Your task to perform on an android device: toggle sleep mode Image 0: 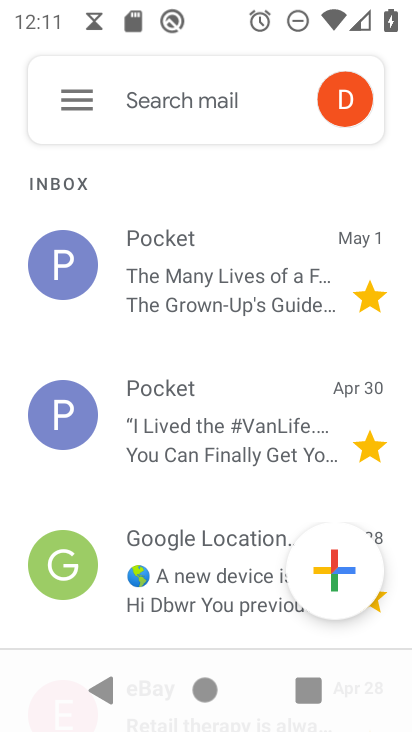
Step 0: press home button
Your task to perform on an android device: toggle sleep mode Image 1: 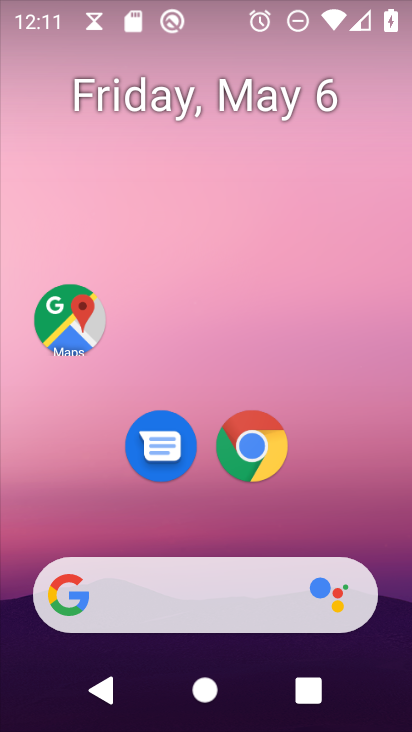
Step 1: drag from (243, 651) to (242, 349)
Your task to perform on an android device: toggle sleep mode Image 2: 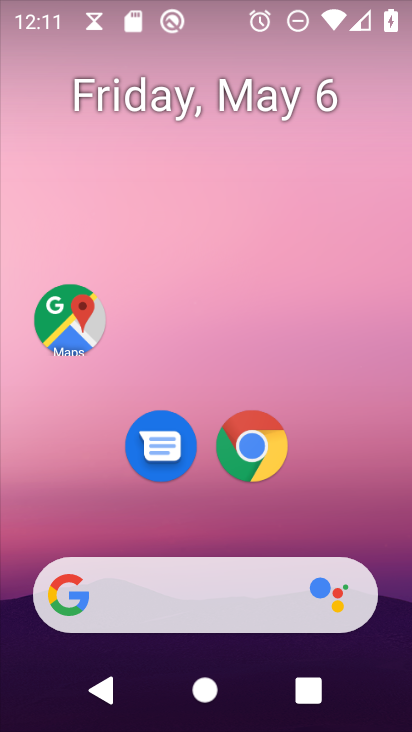
Step 2: drag from (257, 641) to (224, 296)
Your task to perform on an android device: toggle sleep mode Image 3: 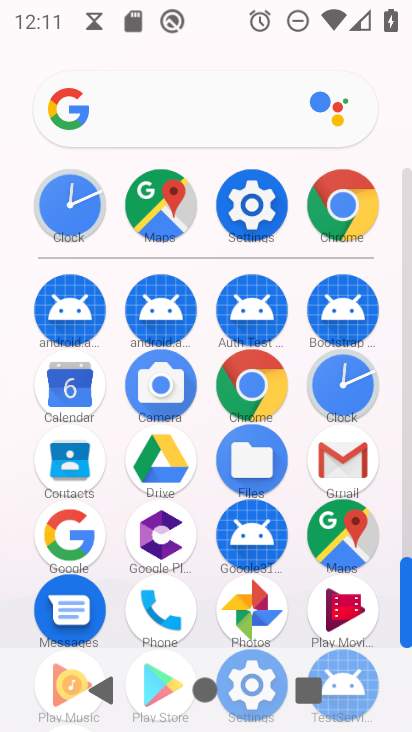
Step 3: click (238, 223)
Your task to perform on an android device: toggle sleep mode Image 4: 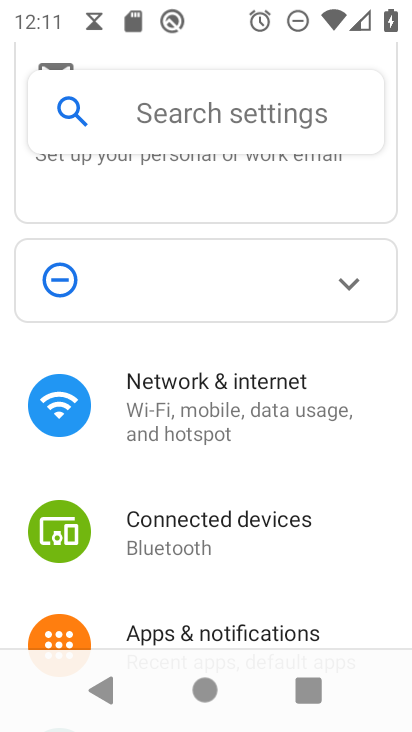
Step 4: click (204, 128)
Your task to perform on an android device: toggle sleep mode Image 5: 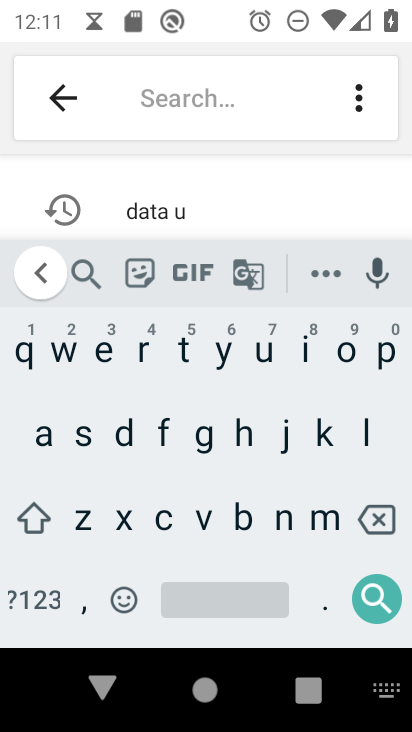
Step 5: click (82, 439)
Your task to perform on an android device: toggle sleep mode Image 6: 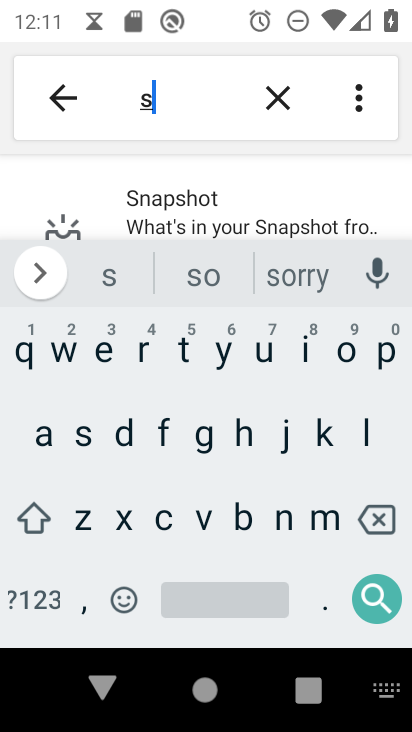
Step 6: click (375, 429)
Your task to perform on an android device: toggle sleep mode Image 7: 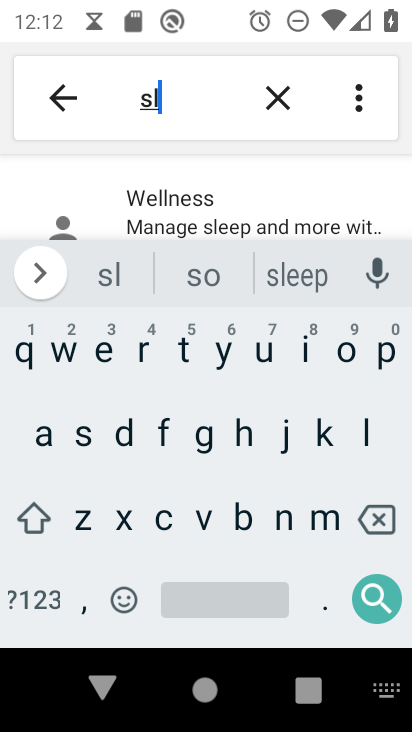
Step 7: click (107, 352)
Your task to perform on an android device: toggle sleep mode Image 8: 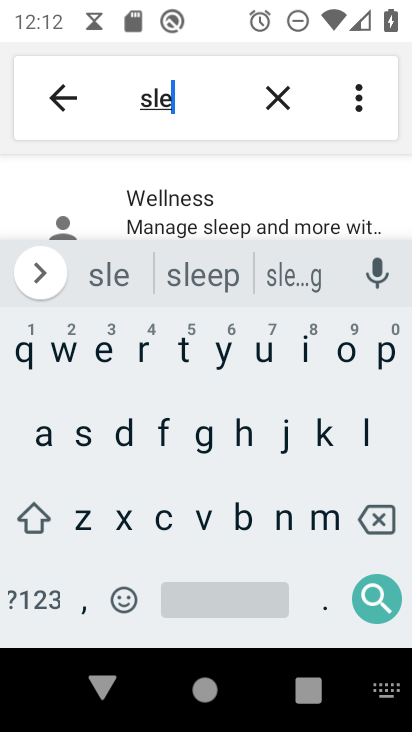
Step 8: click (171, 210)
Your task to perform on an android device: toggle sleep mode Image 9: 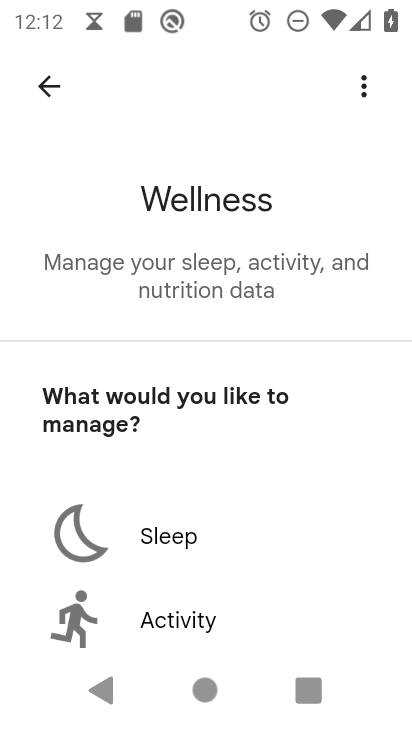
Step 9: click (141, 534)
Your task to perform on an android device: toggle sleep mode Image 10: 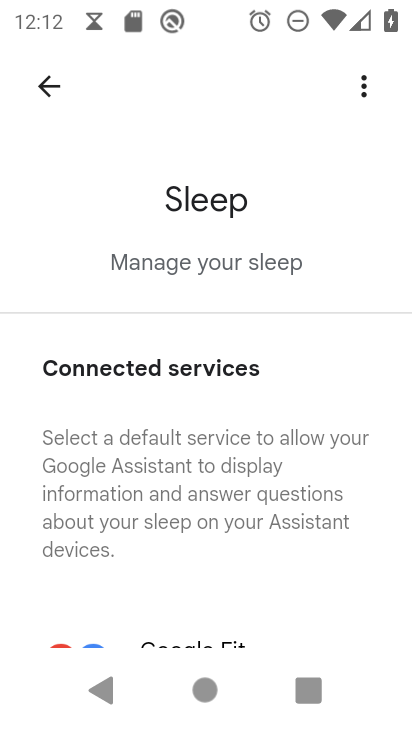
Step 10: task complete